Your task to perform on an android device: Turn off the flashlight Image 0: 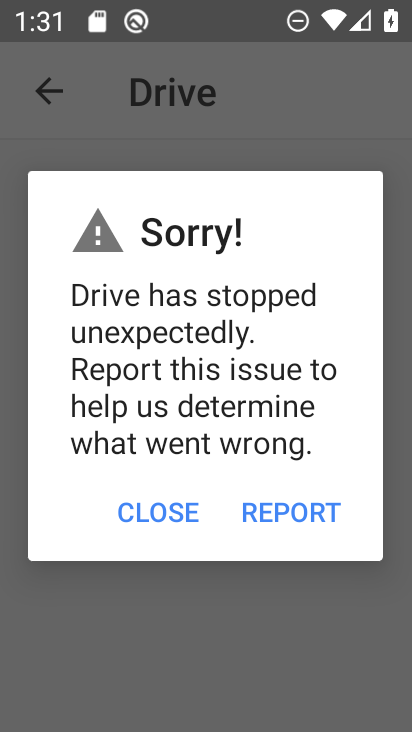
Step 0: press home button
Your task to perform on an android device: Turn off the flashlight Image 1: 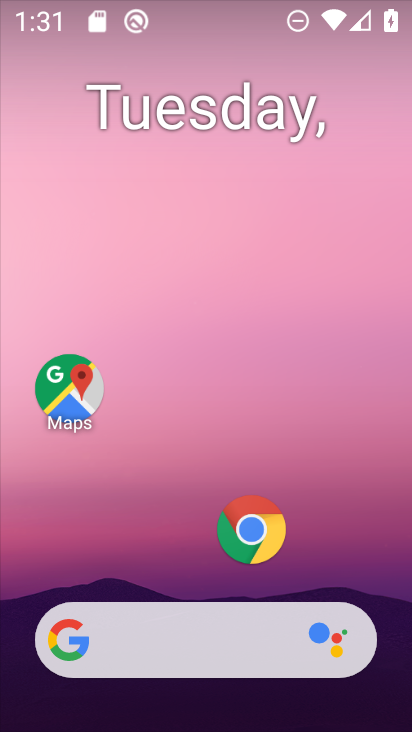
Step 1: drag from (254, 682) to (201, 282)
Your task to perform on an android device: Turn off the flashlight Image 2: 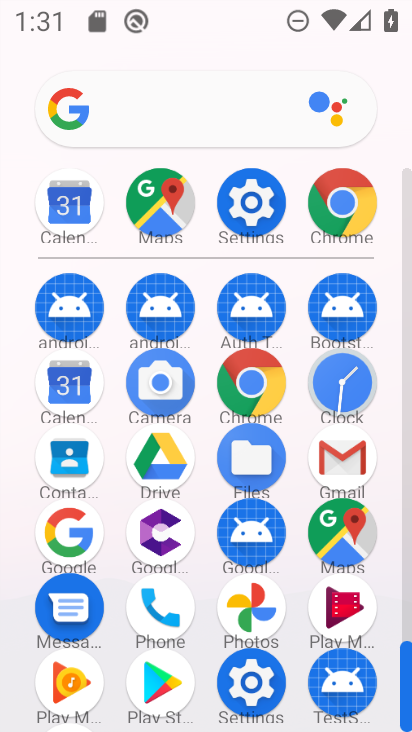
Step 2: click (250, 217)
Your task to perform on an android device: Turn off the flashlight Image 3: 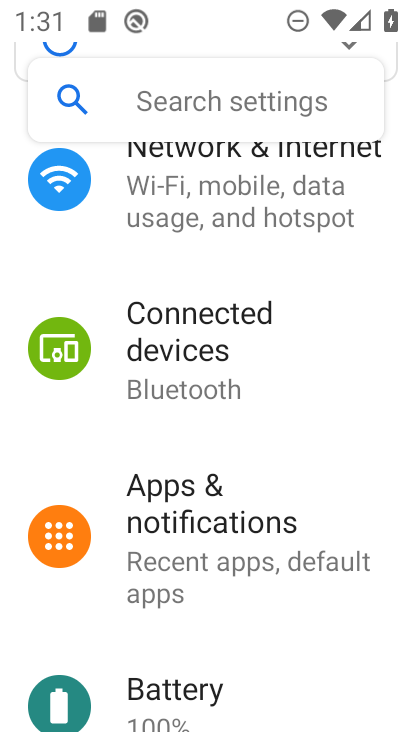
Step 3: click (188, 107)
Your task to perform on an android device: Turn off the flashlight Image 4: 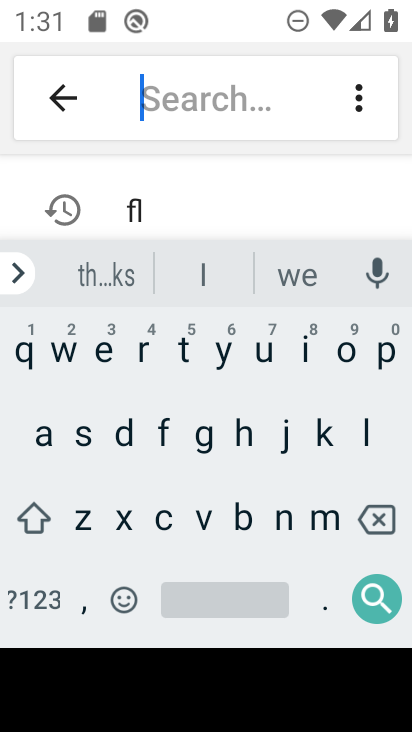
Step 4: click (129, 209)
Your task to perform on an android device: Turn off the flashlight Image 5: 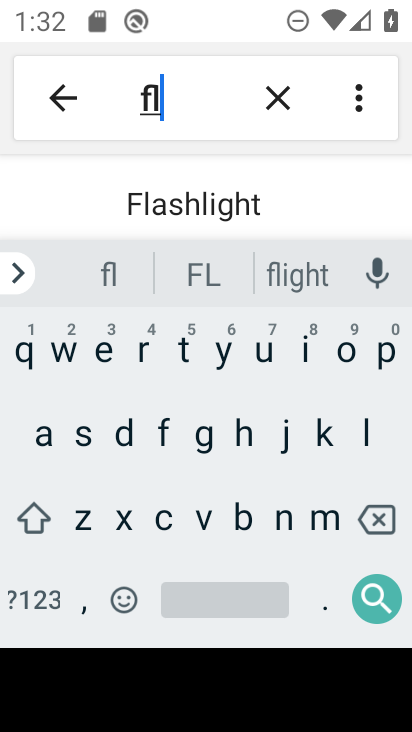
Step 5: click (157, 205)
Your task to perform on an android device: Turn off the flashlight Image 6: 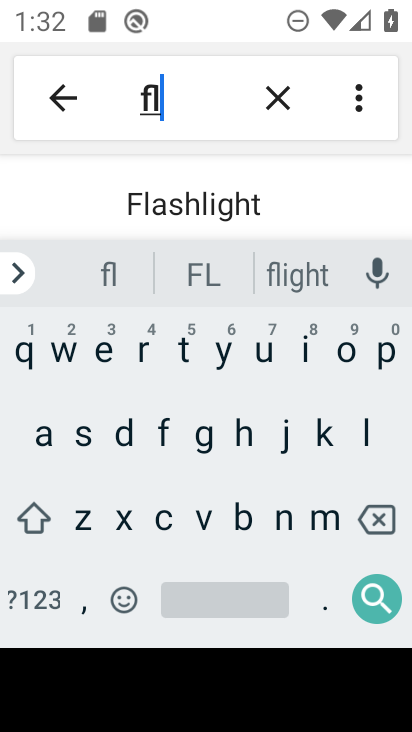
Step 6: task complete